Your task to perform on an android device: Do I have any events tomorrow? Image 0: 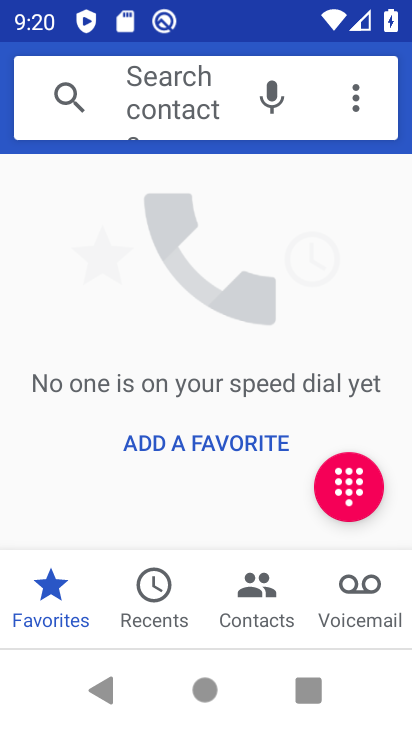
Step 0: press home button
Your task to perform on an android device: Do I have any events tomorrow? Image 1: 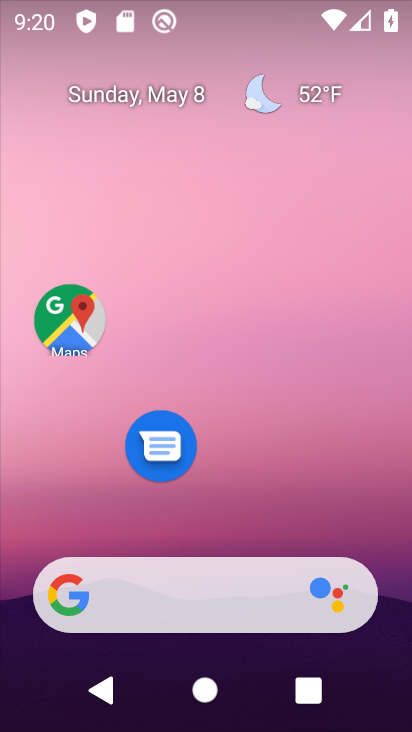
Step 1: drag from (238, 465) to (197, 48)
Your task to perform on an android device: Do I have any events tomorrow? Image 2: 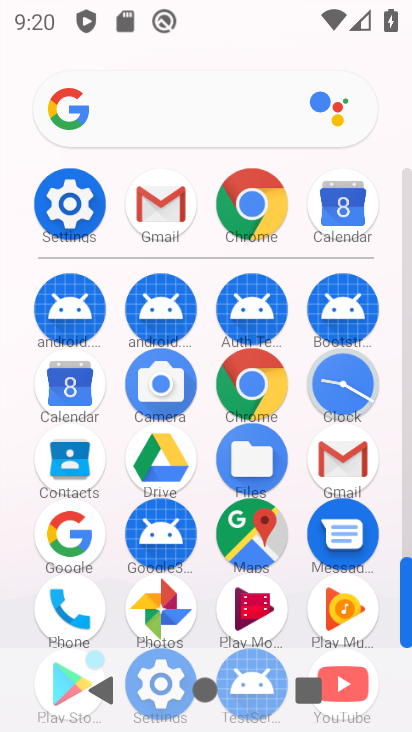
Step 2: click (73, 373)
Your task to perform on an android device: Do I have any events tomorrow? Image 3: 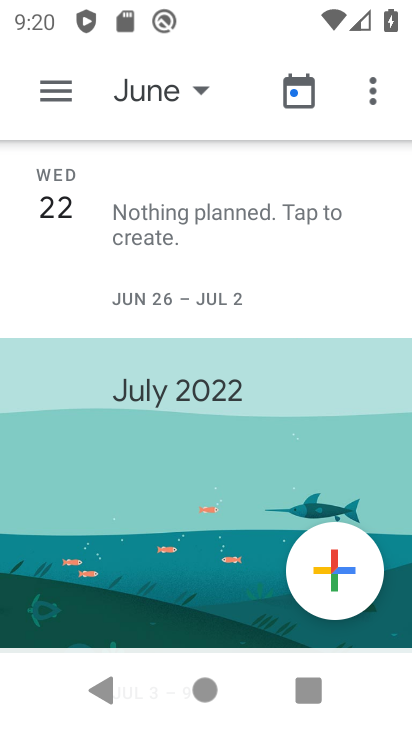
Step 3: click (184, 99)
Your task to perform on an android device: Do I have any events tomorrow? Image 4: 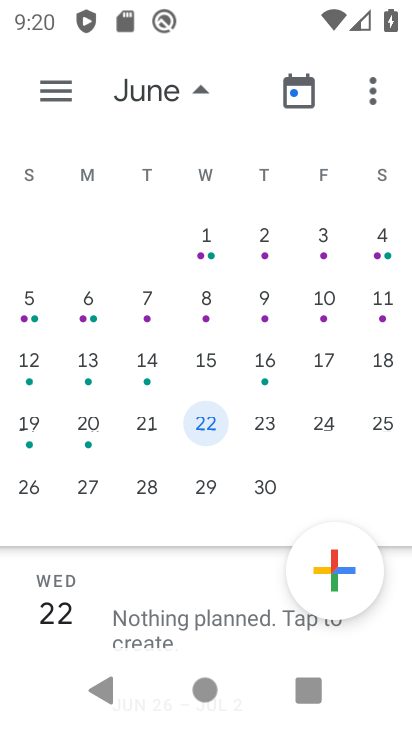
Step 4: drag from (38, 369) to (372, 466)
Your task to perform on an android device: Do I have any events tomorrow? Image 5: 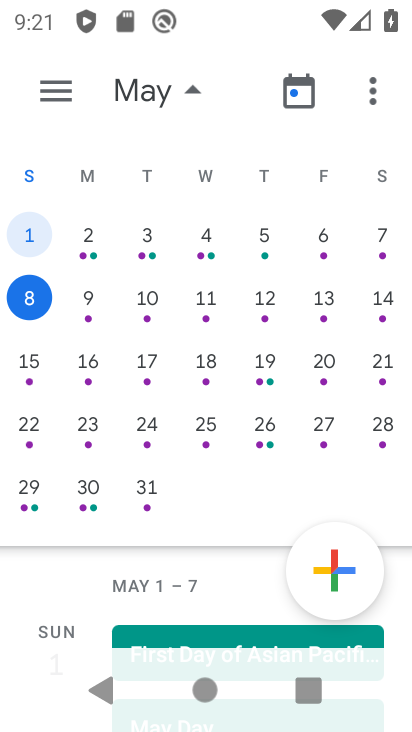
Step 5: click (96, 299)
Your task to perform on an android device: Do I have any events tomorrow? Image 6: 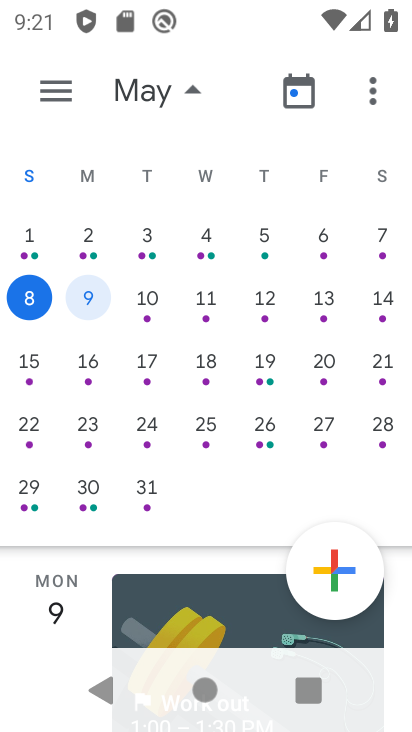
Step 6: click (65, 66)
Your task to perform on an android device: Do I have any events tomorrow? Image 7: 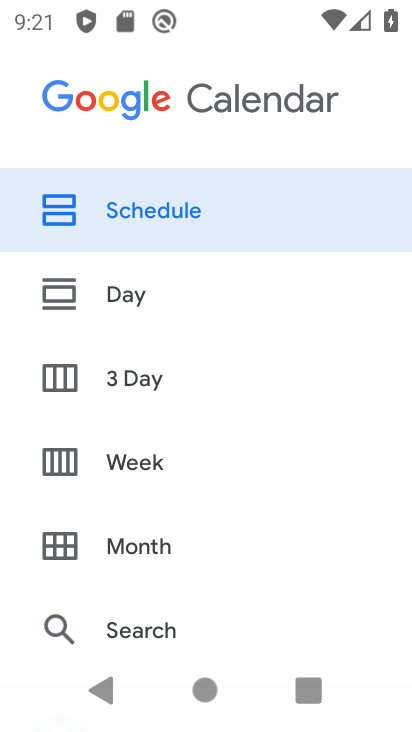
Step 7: click (86, 222)
Your task to perform on an android device: Do I have any events tomorrow? Image 8: 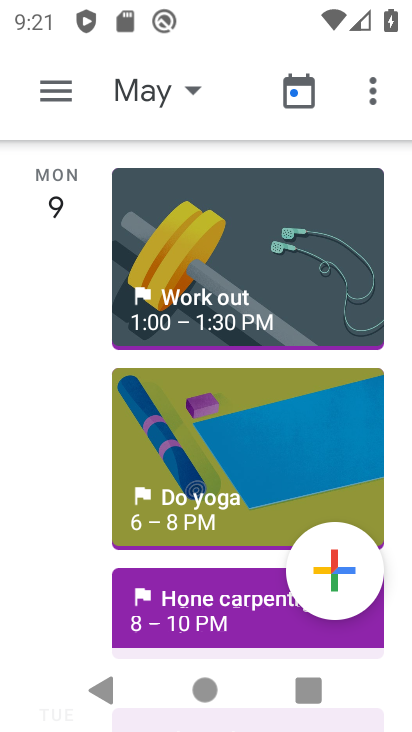
Step 8: task complete